Your task to perform on an android device: Open internet settings Image 0: 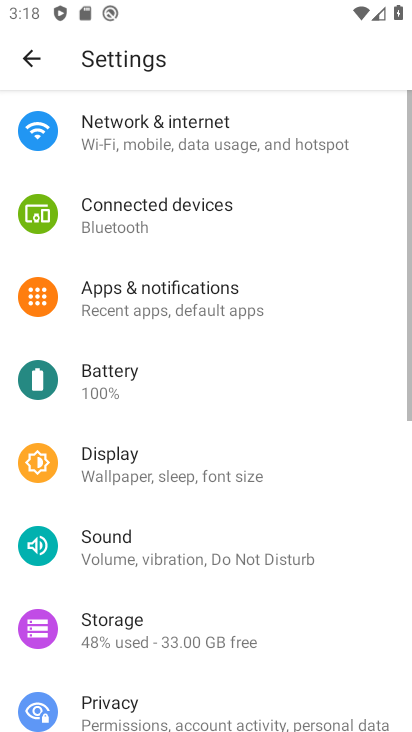
Step 0: press home button
Your task to perform on an android device: Open internet settings Image 1: 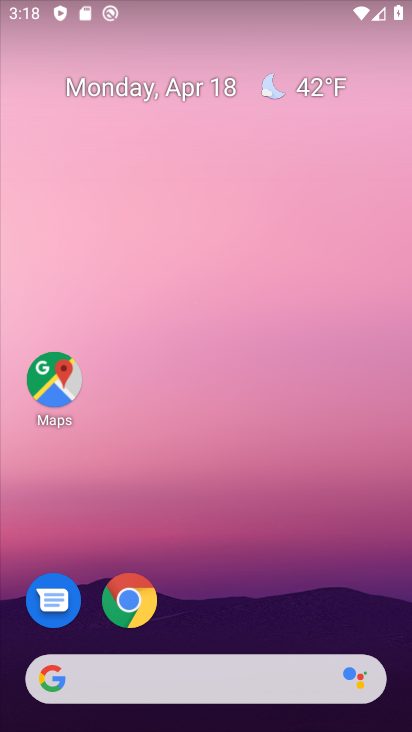
Step 1: drag from (175, 676) to (340, 0)
Your task to perform on an android device: Open internet settings Image 2: 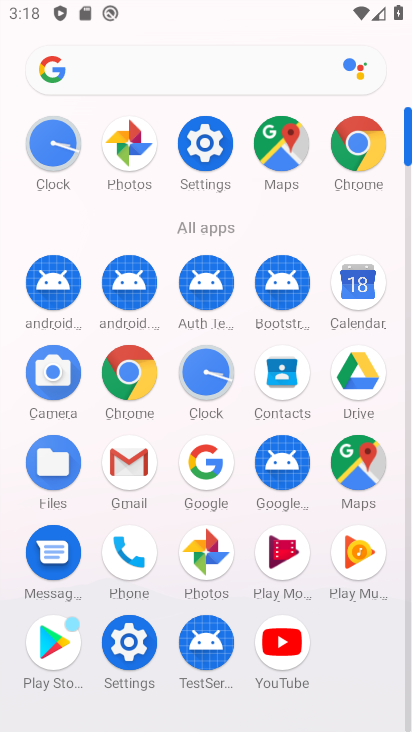
Step 2: click (215, 140)
Your task to perform on an android device: Open internet settings Image 3: 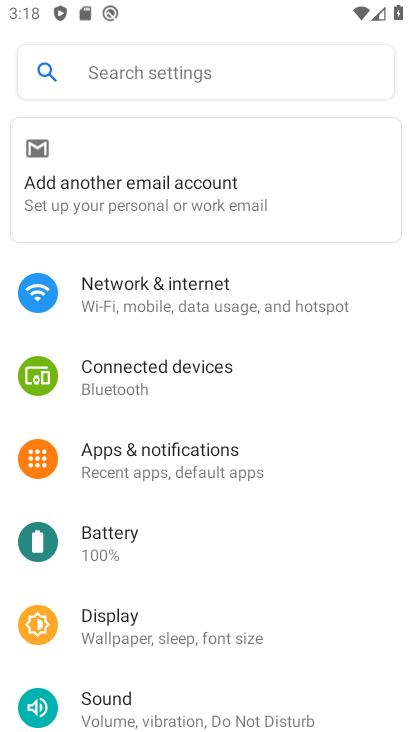
Step 3: click (159, 302)
Your task to perform on an android device: Open internet settings Image 4: 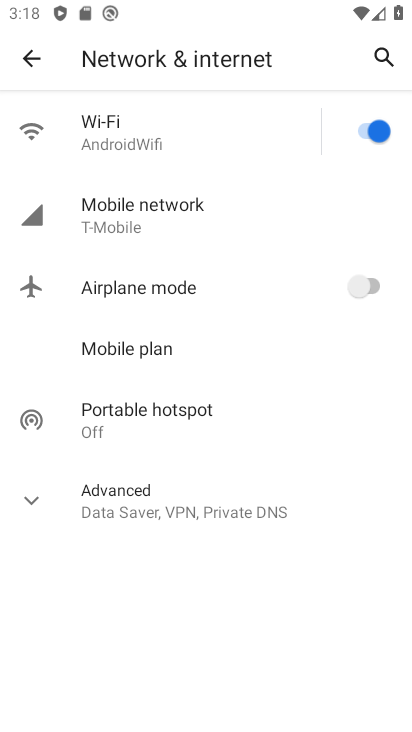
Step 4: task complete